Your task to perform on an android device: Go to Wikipedia Image 0: 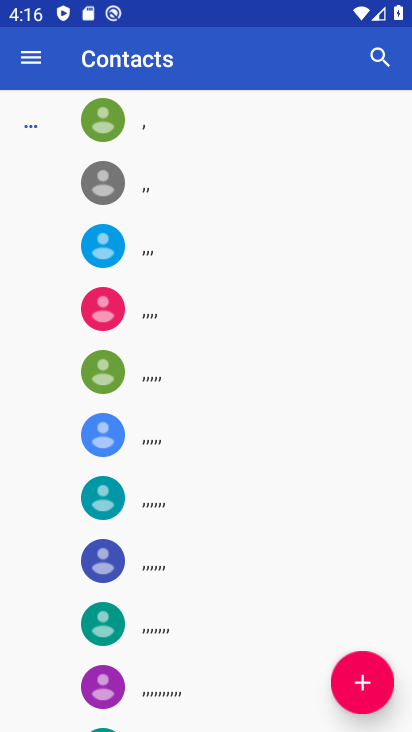
Step 0: press back button
Your task to perform on an android device: Go to Wikipedia Image 1: 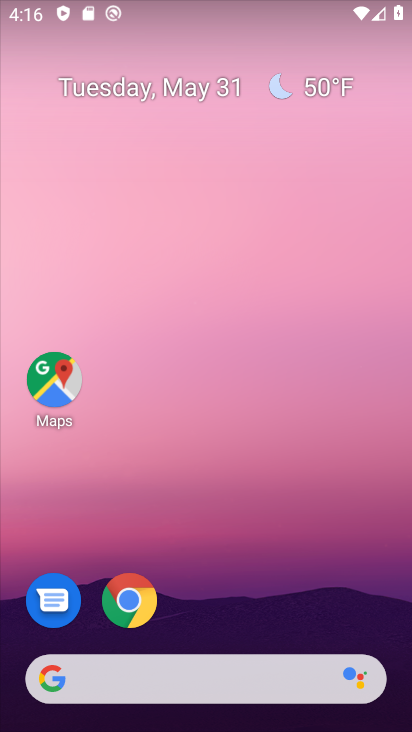
Step 1: drag from (282, 588) to (191, 149)
Your task to perform on an android device: Go to Wikipedia Image 2: 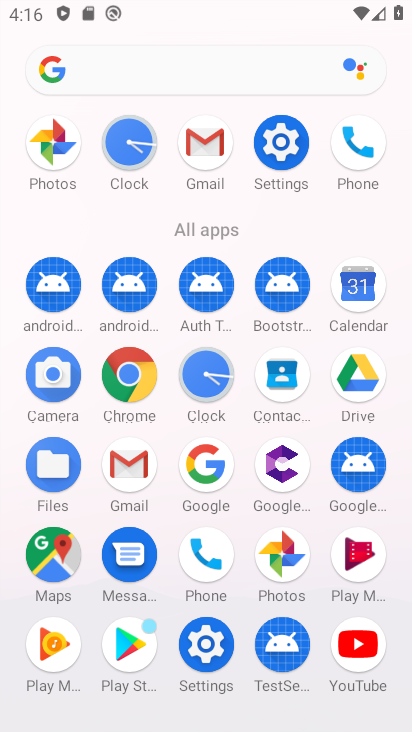
Step 2: click (131, 375)
Your task to perform on an android device: Go to Wikipedia Image 3: 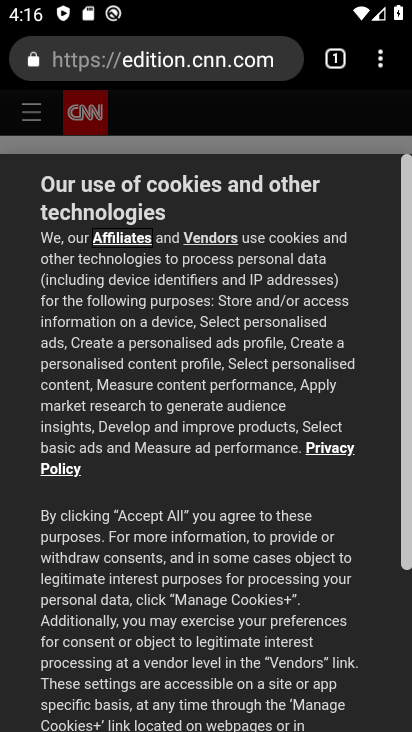
Step 3: click (268, 59)
Your task to perform on an android device: Go to Wikipedia Image 4: 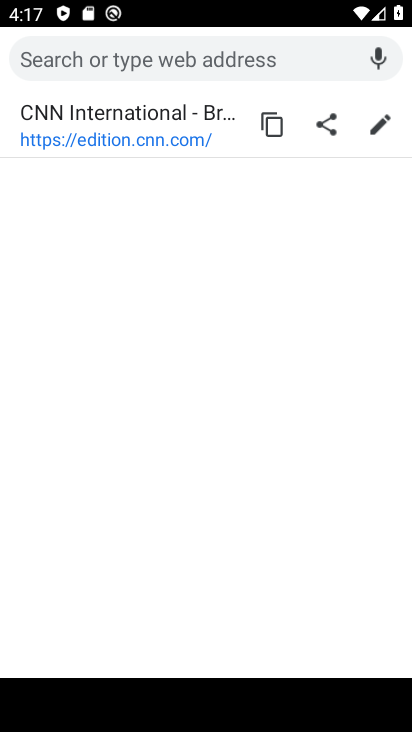
Step 4: type "Wikipedia"
Your task to perform on an android device: Go to Wikipedia Image 5: 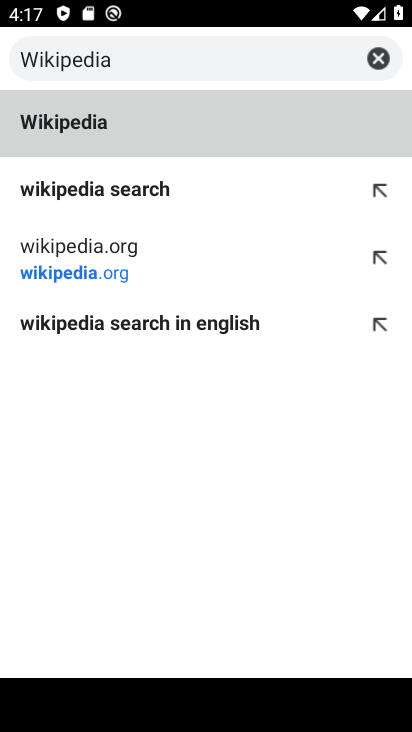
Step 5: click (82, 118)
Your task to perform on an android device: Go to Wikipedia Image 6: 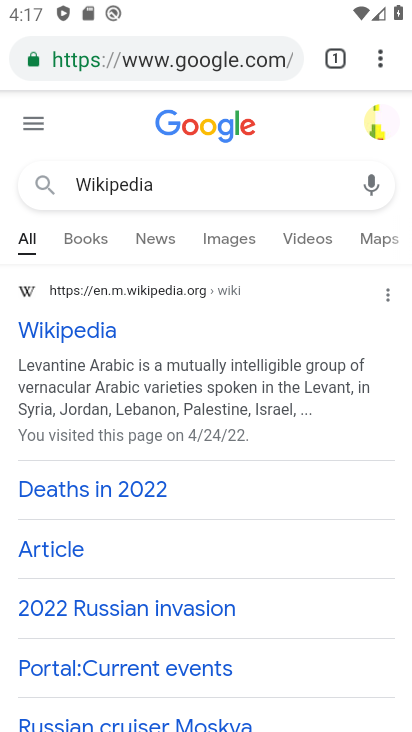
Step 6: click (109, 333)
Your task to perform on an android device: Go to Wikipedia Image 7: 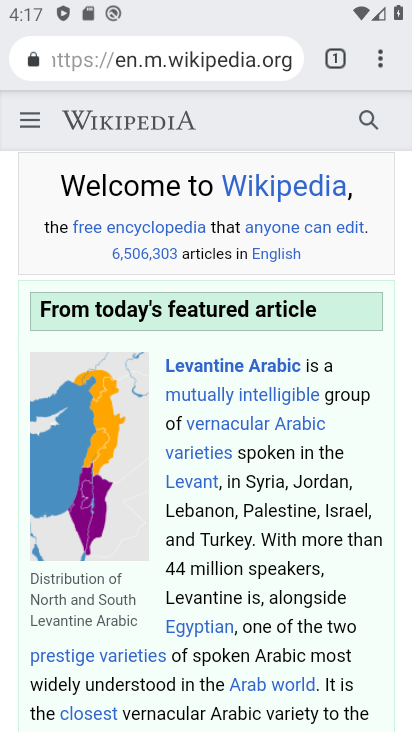
Step 7: task complete